Your task to perform on an android device: What is the recent news? Image 0: 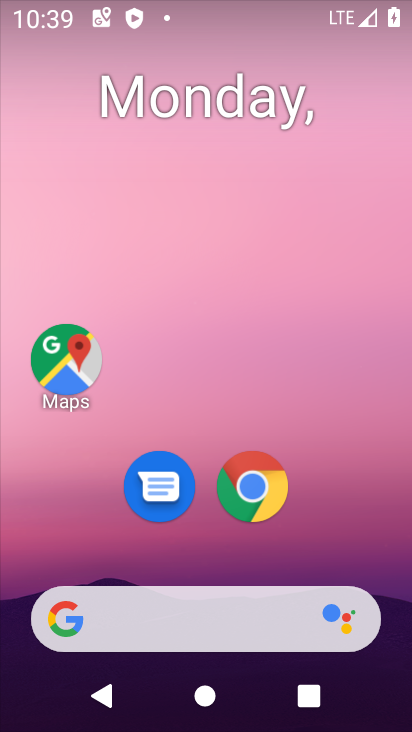
Step 0: click (208, 618)
Your task to perform on an android device: What is the recent news? Image 1: 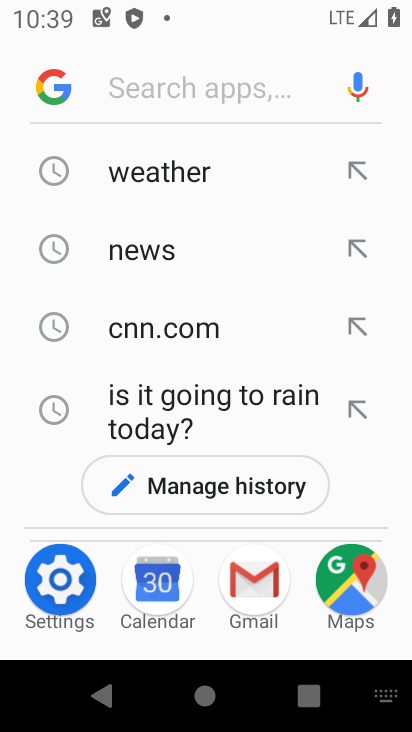
Step 1: click (154, 251)
Your task to perform on an android device: What is the recent news? Image 2: 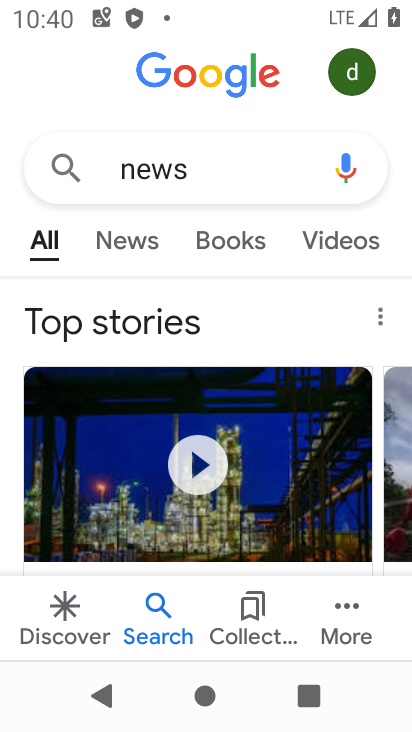
Step 2: task complete